Your task to perform on an android device: turn off javascript in the chrome app Image 0: 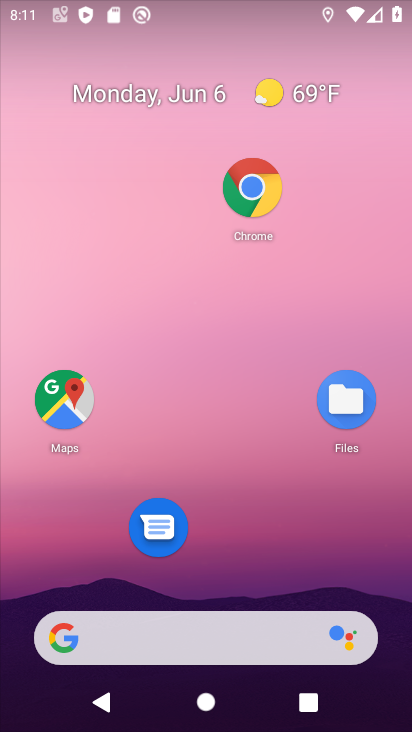
Step 0: click (247, 179)
Your task to perform on an android device: turn off javascript in the chrome app Image 1: 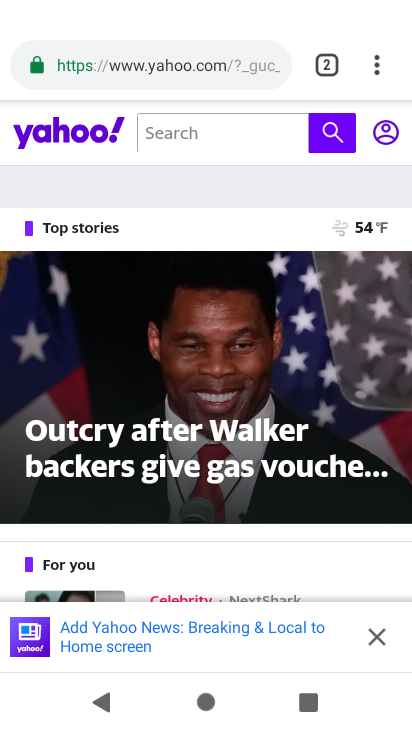
Step 1: click (365, 64)
Your task to perform on an android device: turn off javascript in the chrome app Image 2: 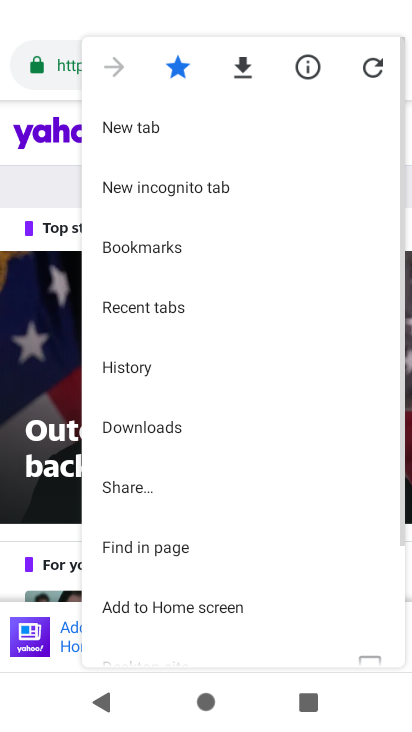
Step 2: drag from (159, 642) to (174, 229)
Your task to perform on an android device: turn off javascript in the chrome app Image 3: 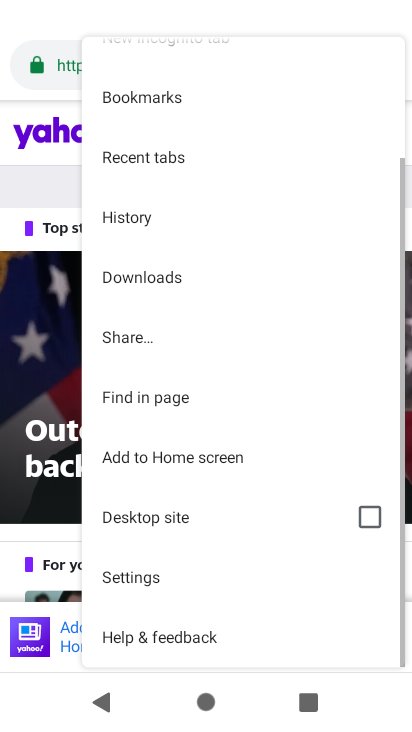
Step 3: click (130, 570)
Your task to perform on an android device: turn off javascript in the chrome app Image 4: 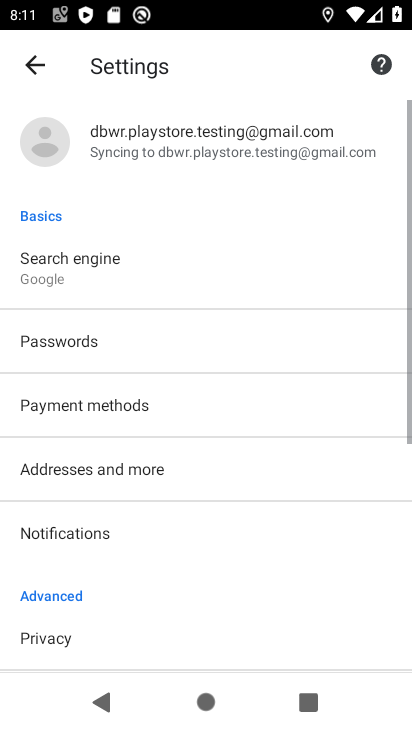
Step 4: drag from (140, 552) to (149, 177)
Your task to perform on an android device: turn off javascript in the chrome app Image 5: 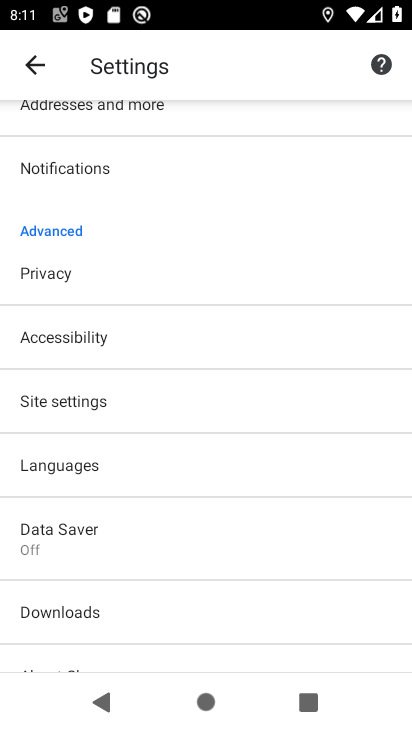
Step 5: click (104, 389)
Your task to perform on an android device: turn off javascript in the chrome app Image 6: 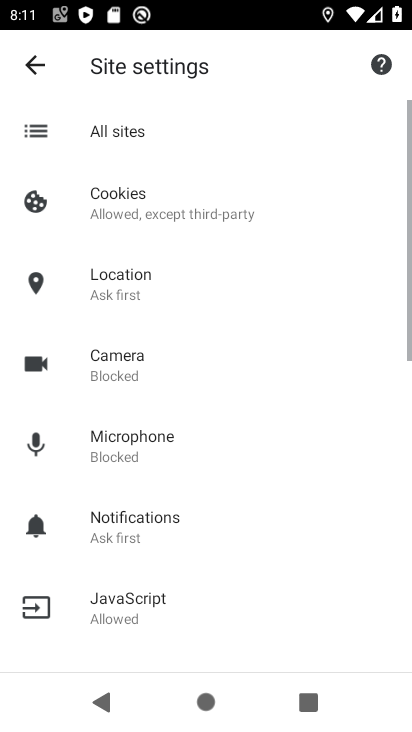
Step 6: drag from (243, 521) to (224, 346)
Your task to perform on an android device: turn off javascript in the chrome app Image 7: 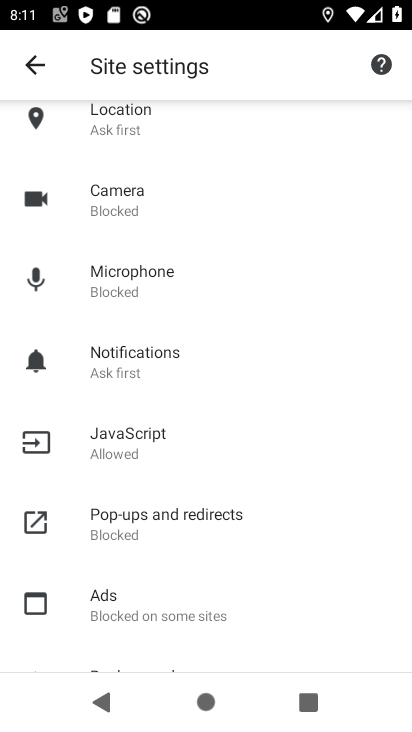
Step 7: click (113, 431)
Your task to perform on an android device: turn off javascript in the chrome app Image 8: 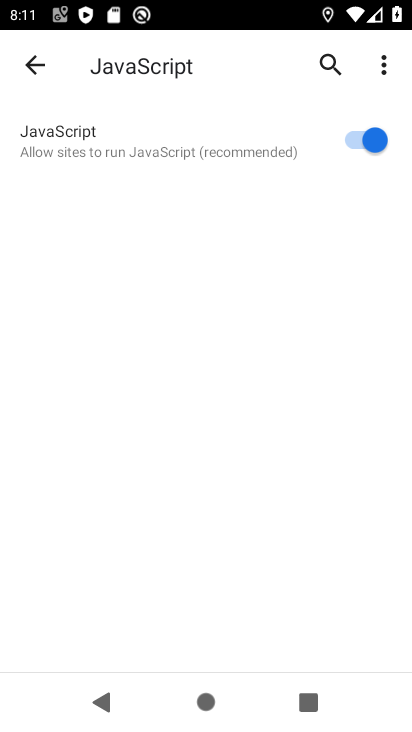
Step 8: click (381, 141)
Your task to perform on an android device: turn off javascript in the chrome app Image 9: 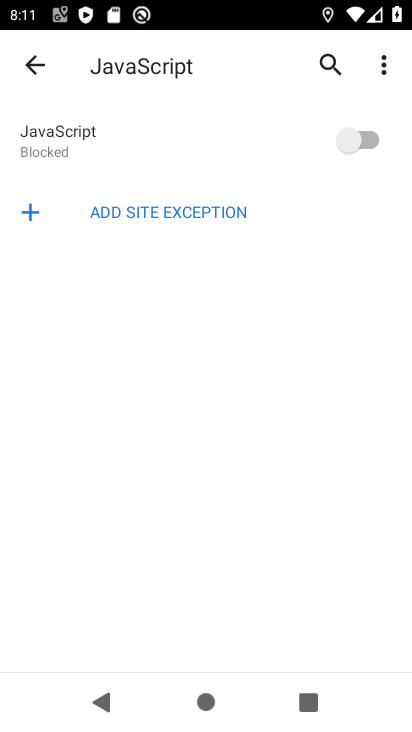
Step 9: task complete